Your task to perform on an android device: What is the news today? Image 0: 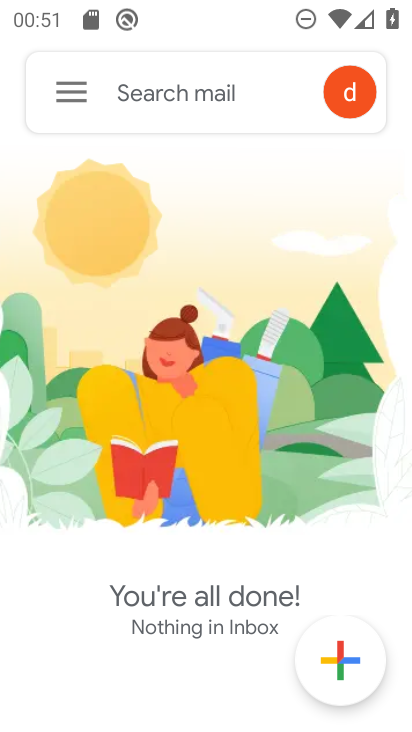
Step 0: press home button
Your task to perform on an android device: What is the news today? Image 1: 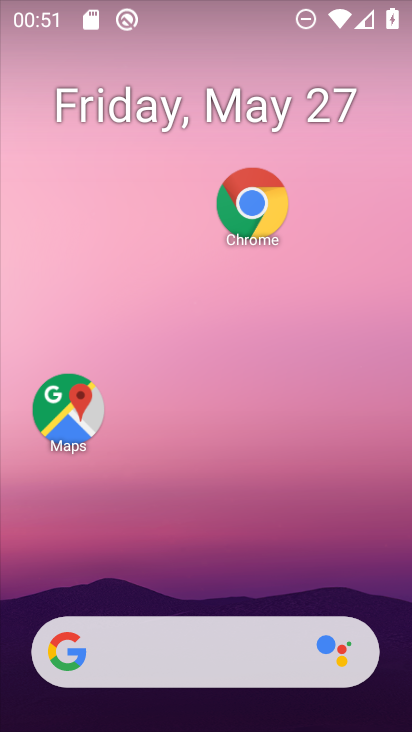
Step 1: drag from (236, 431) to (248, 0)
Your task to perform on an android device: What is the news today? Image 2: 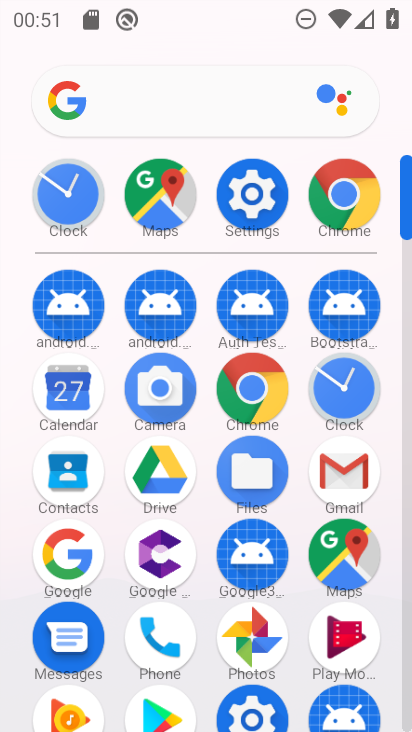
Step 2: click (245, 112)
Your task to perform on an android device: What is the news today? Image 3: 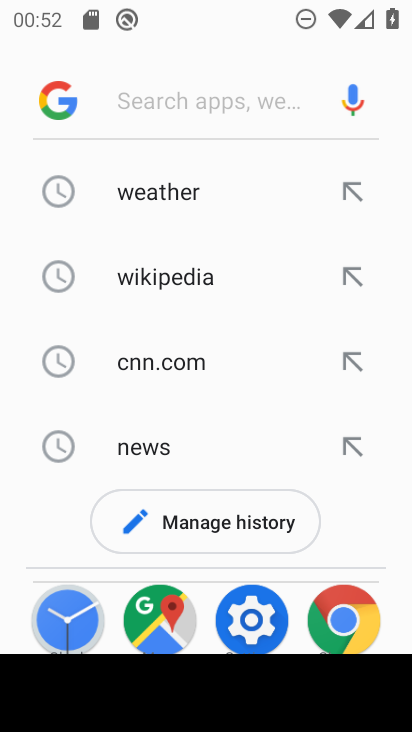
Step 3: click (242, 453)
Your task to perform on an android device: What is the news today? Image 4: 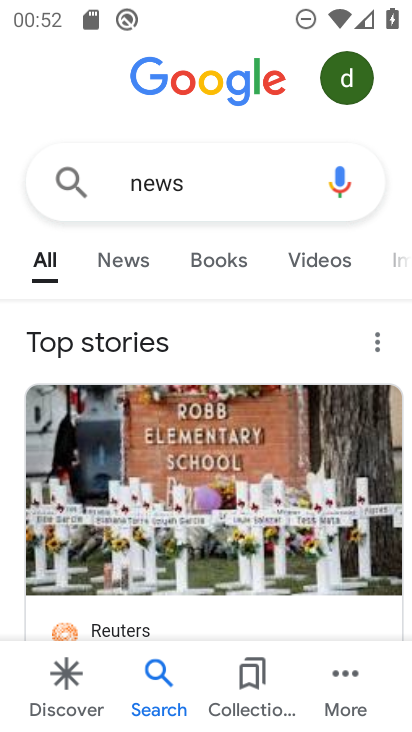
Step 4: task complete